Your task to perform on an android device: show emergency info Image 0: 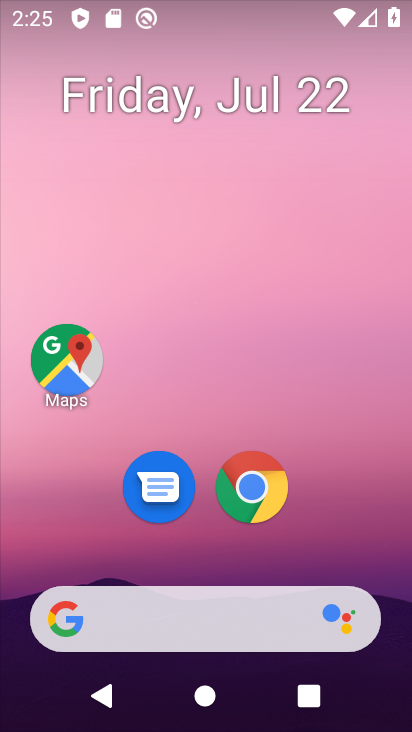
Step 0: drag from (167, 556) to (158, 21)
Your task to perform on an android device: show emergency info Image 1: 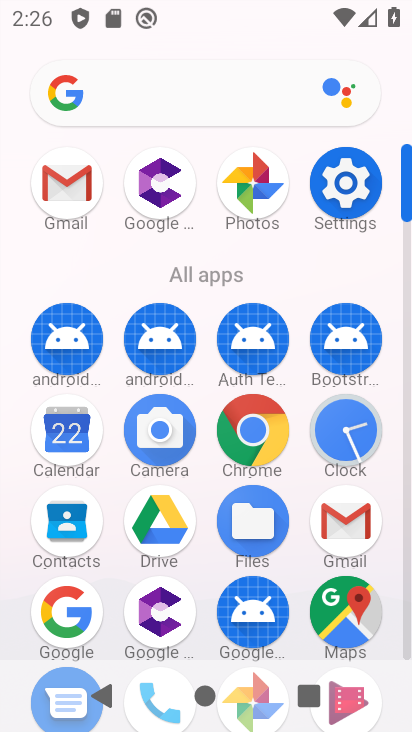
Step 1: click (336, 163)
Your task to perform on an android device: show emergency info Image 2: 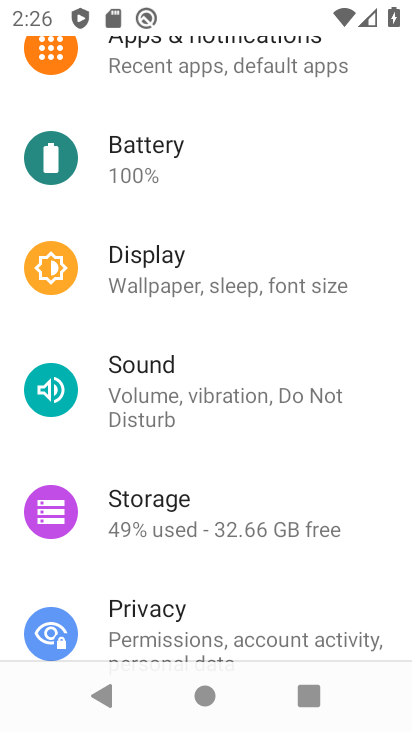
Step 2: drag from (190, 613) to (332, 40)
Your task to perform on an android device: show emergency info Image 3: 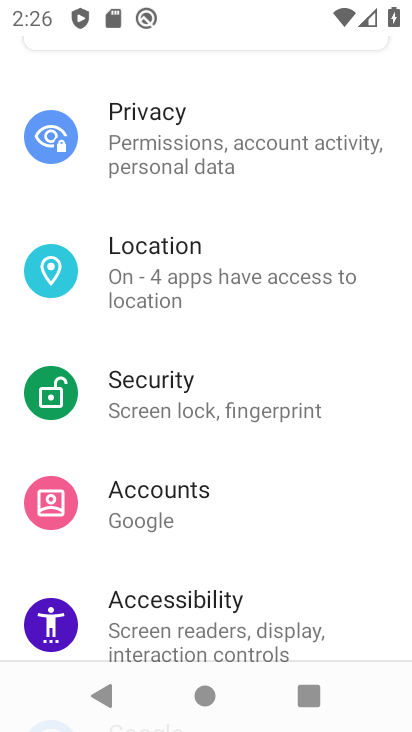
Step 3: drag from (199, 608) to (296, 4)
Your task to perform on an android device: show emergency info Image 4: 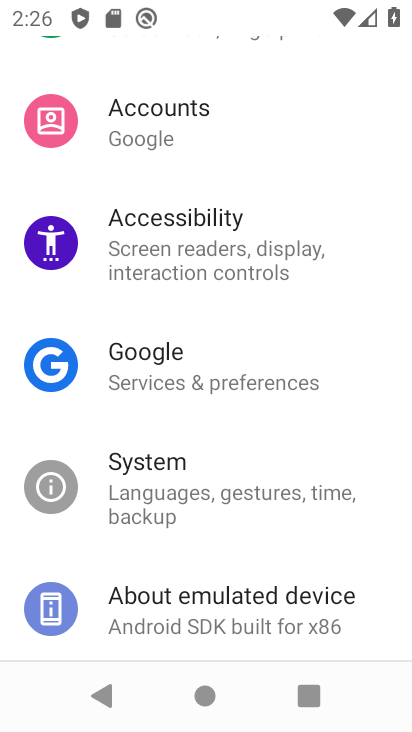
Step 4: drag from (188, 592) to (181, 163)
Your task to perform on an android device: show emergency info Image 5: 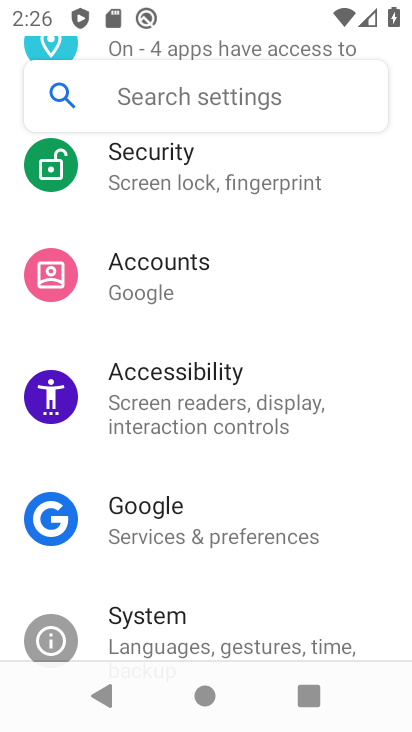
Step 5: drag from (162, 551) to (254, 6)
Your task to perform on an android device: show emergency info Image 6: 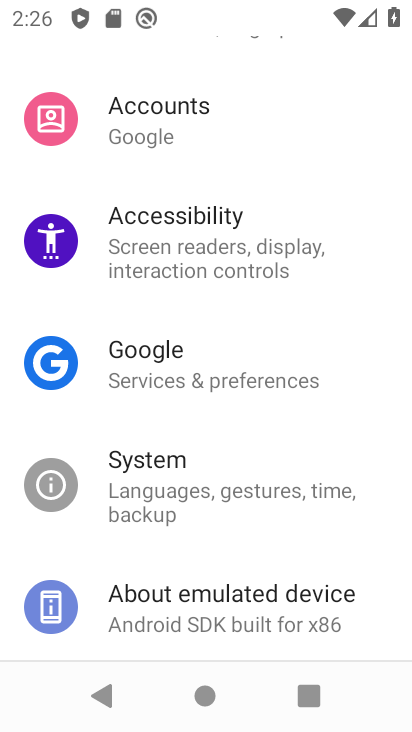
Step 6: drag from (200, 593) to (261, 51)
Your task to perform on an android device: show emergency info Image 7: 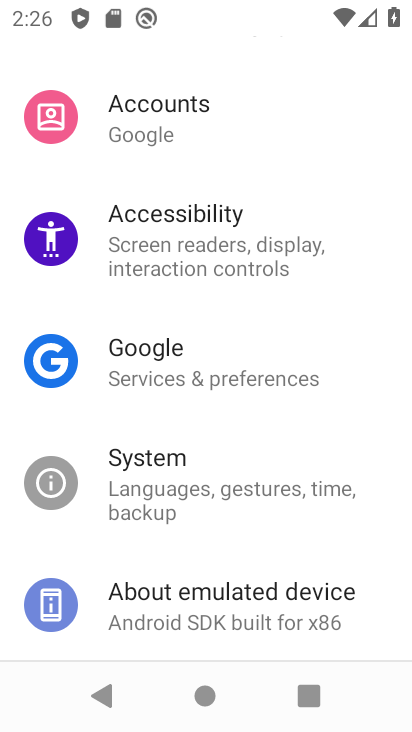
Step 7: drag from (184, 562) to (255, 1)
Your task to perform on an android device: show emergency info Image 8: 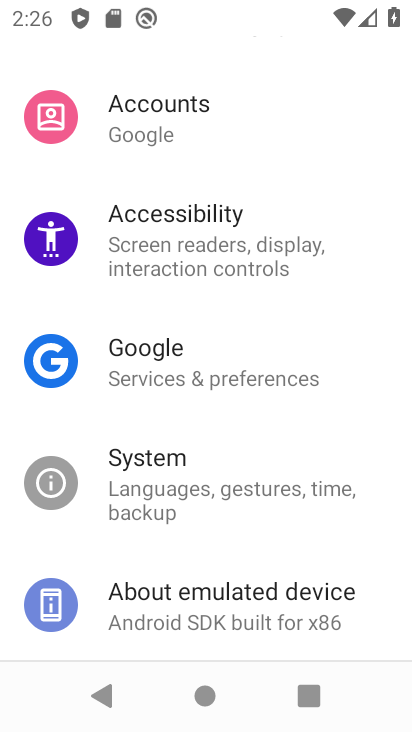
Step 8: click (162, 609)
Your task to perform on an android device: show emergency info Image 9: 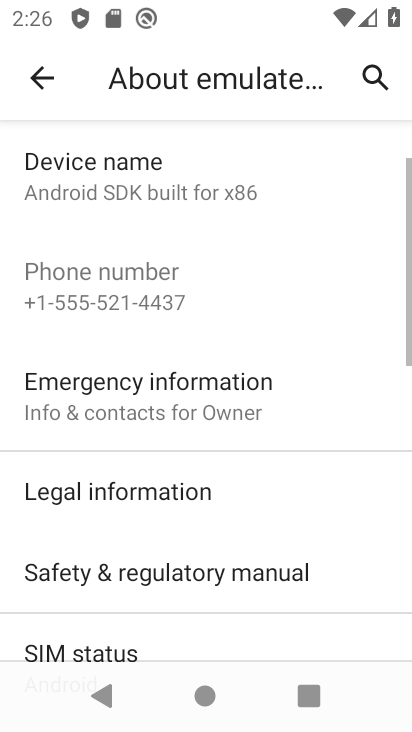
Step 9: drag from (130, 612) to (177, 342)
Your task to perform on an android device: show emergency info Image 10: 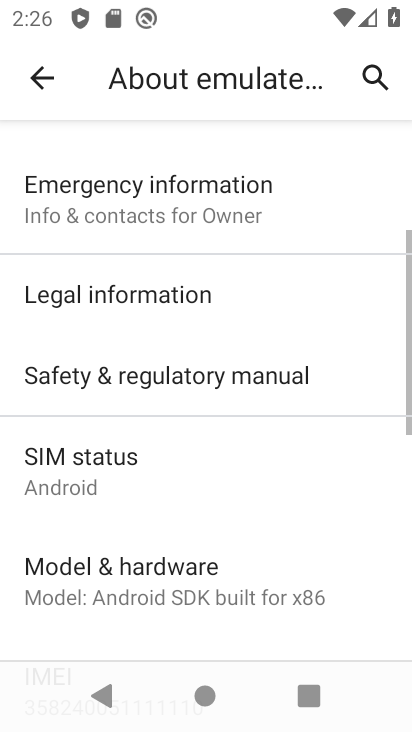
Step 10: click (92, 191)
Your task to perform on an android device: show emergency info Image 11: 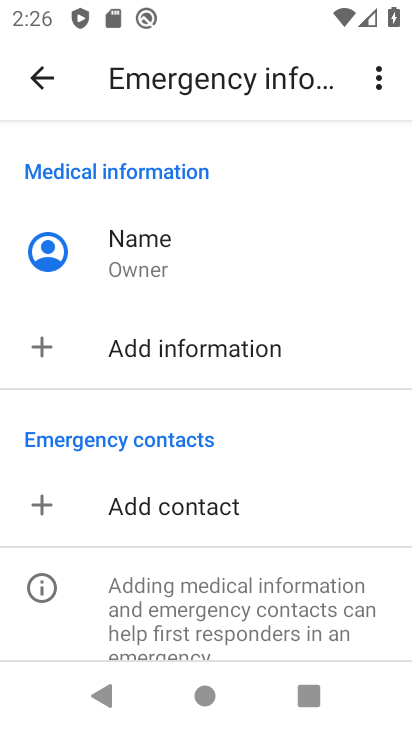
Step 11: task complete